Your task to perform on an android device: turn off translation in the chrome app Image 0: 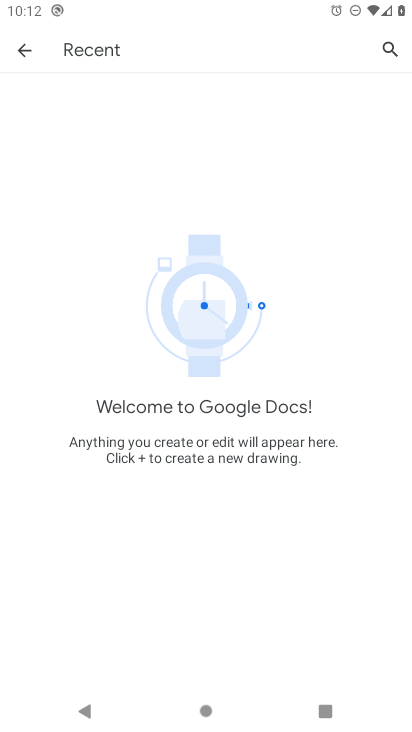
Step 0: press home button
Your task to perform on an android device: turn off translation in the chrome app Image 1: 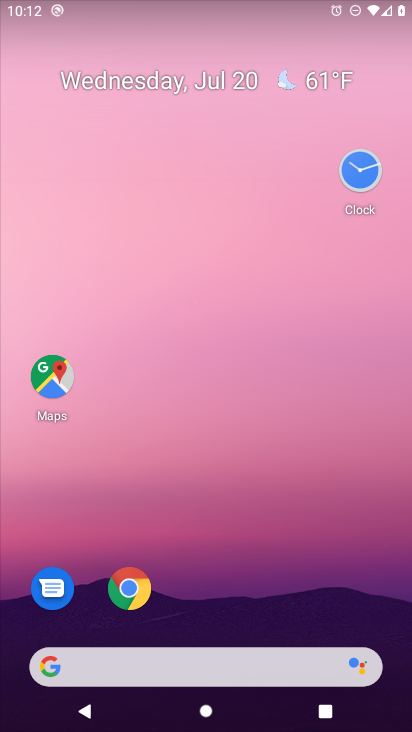
Step 1: click (138, 593)
Your task to perform on an android device: turn off translation in the chrome app Image 2: 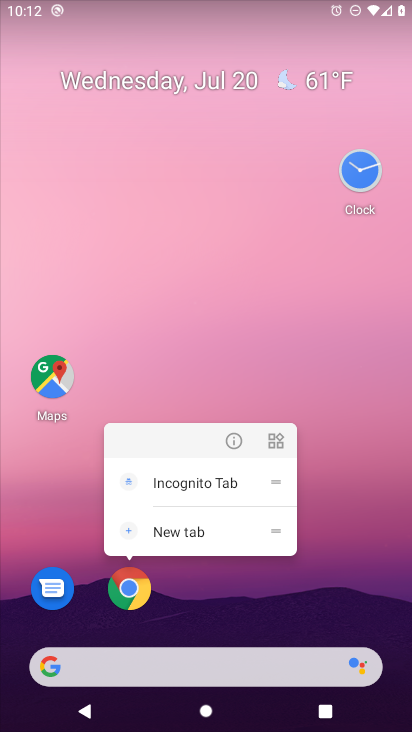
Step 2: click (130, 599)
Your task to perform on an android device: turn off translation in the chrome app Image 3: 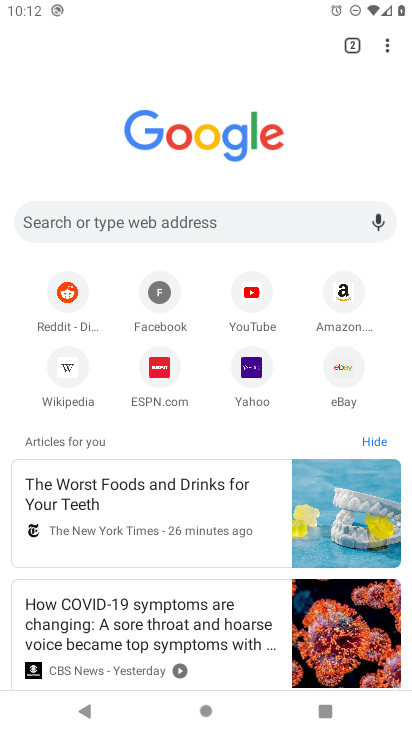
Step 3: click (392, 38)
Your task to perform on an android device: turn off translation in the chrome app Image 4: 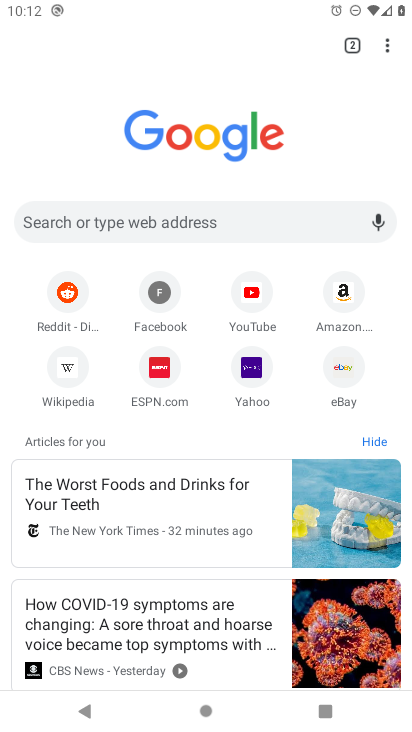
Step 4: click (393, 44)
Your task to perform on an android device: turn off translation in the chrome app Image 5: 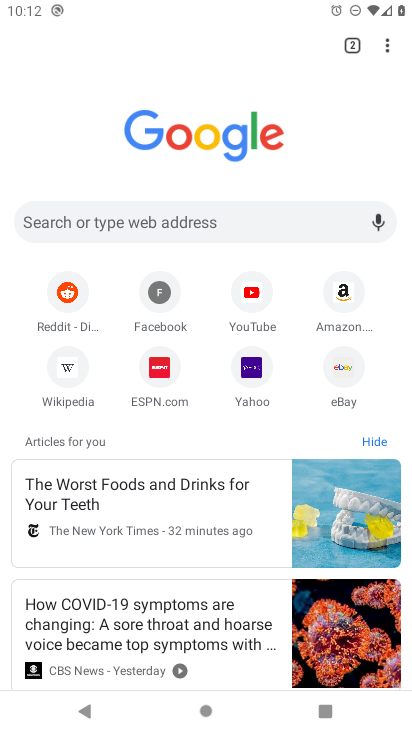
Step 5: click (387, 48)
Your task to perform on an android device: turn off translation in the chrome app Image 6: 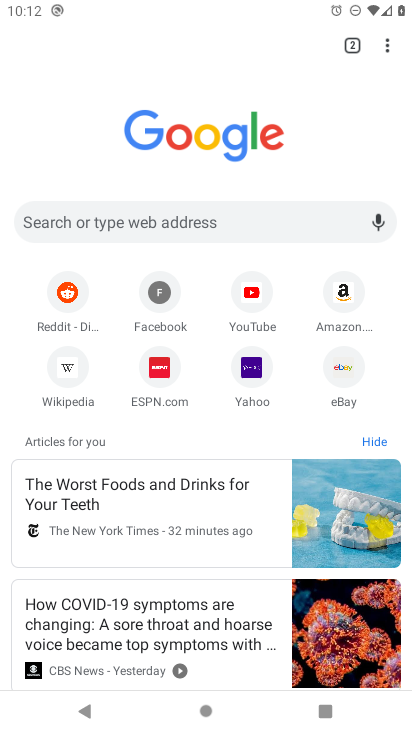
Step 6: click (387, 48)
Your task to perform on an android device: turn off translation in the chrome app Image 7: 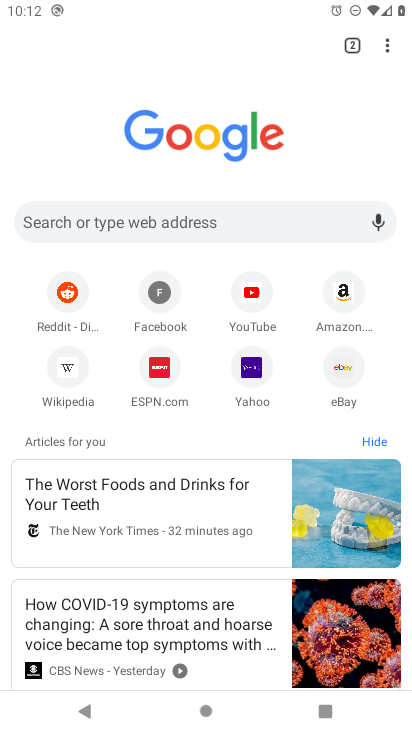
Step 7: task complete